Your task to perform on an android device: check data usage Image 0: 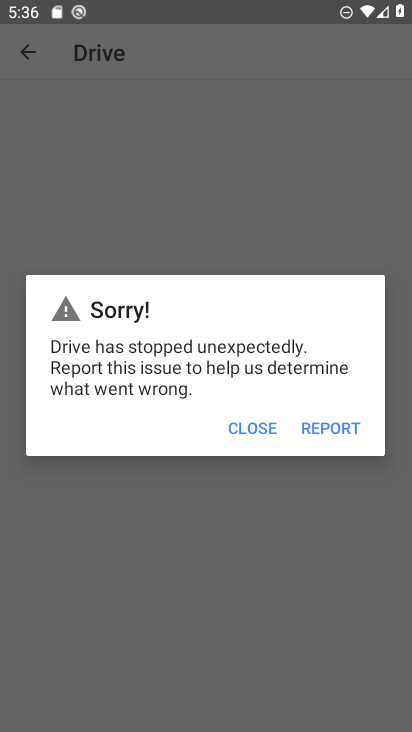
Step 0: press home button
Your task to perform on an android device: check data usage Image 1: 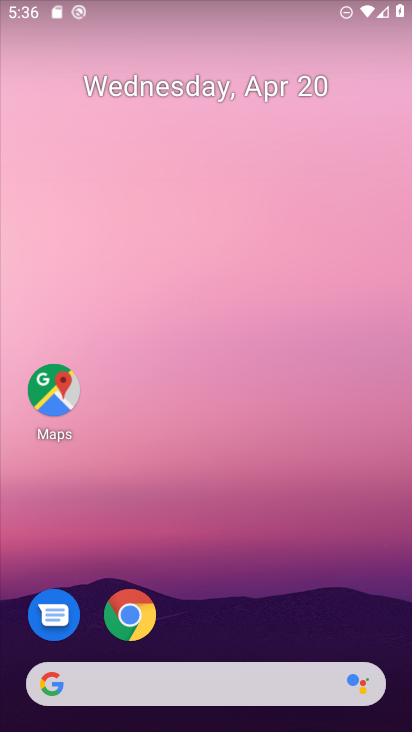
Step 1: drag from (256, 532) to (241, 43)
Your task to perform on an android device: check data usage Image 2: 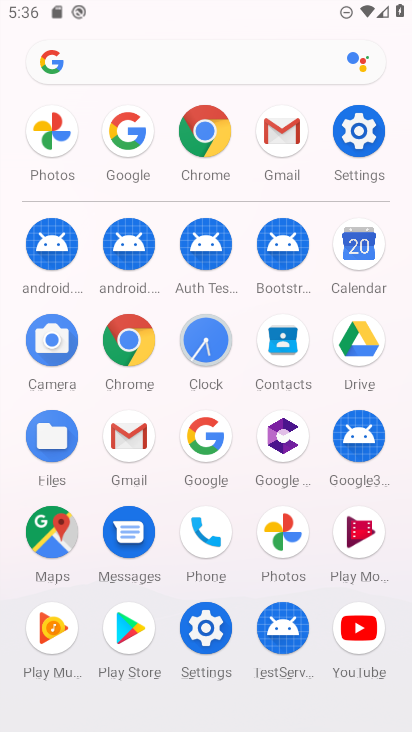
Step 2: click (358, 128)
Your task to perform on an android device: check data usage Image 3: 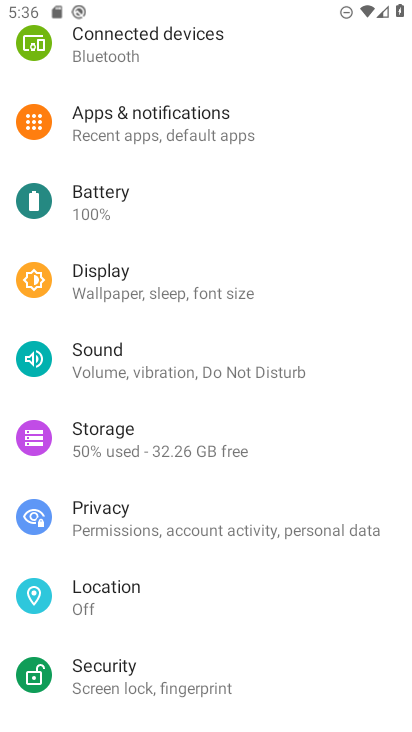
Step 3: click (131, 201)
Your task to perform on an android device: check data usage Image 4: 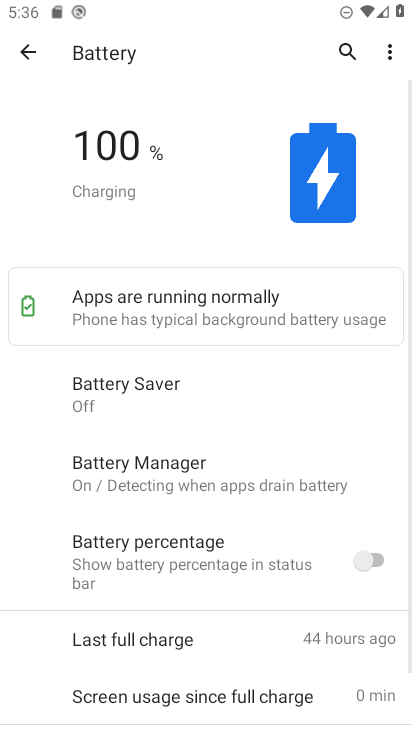
Step 4: click (29, 56)
Your task to perform on an android device: check data usage Image 5: 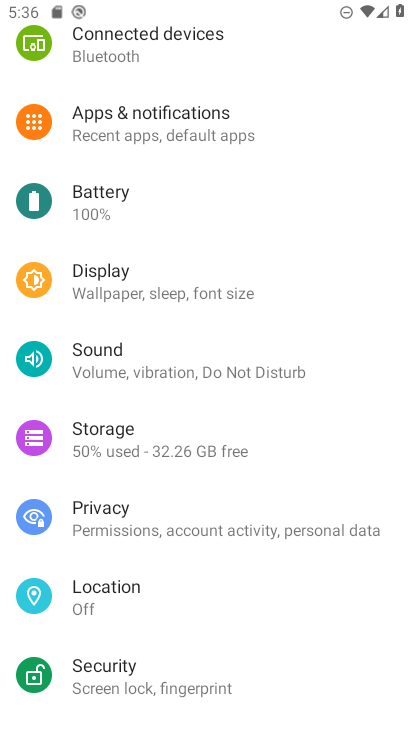
Step 5: drag from (279, 196) to (266, 530)
Your task to perform on an android device: check data usage Image 6: 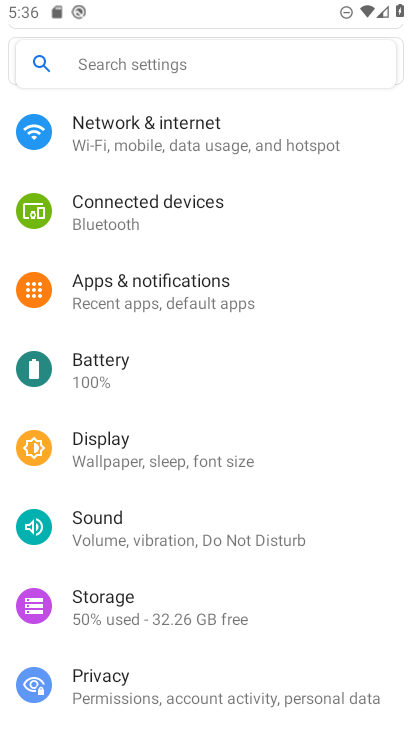
Step 6: click (192, 135)
Your task to perform on an android device: check data usage Image 7: 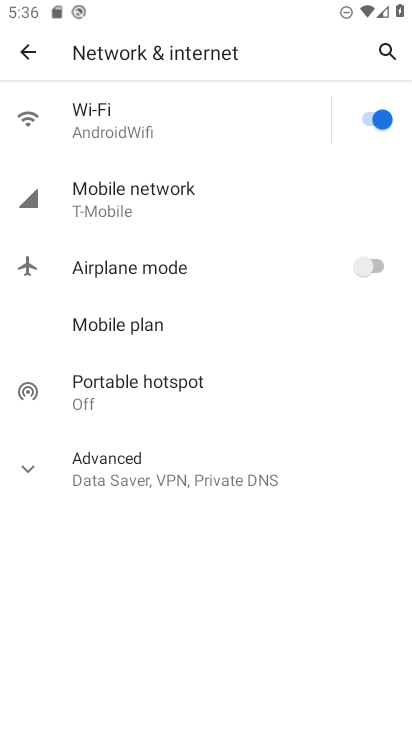
Step 7: click (135, 202)
Your task to perform on an android device: check data usage Image 8: 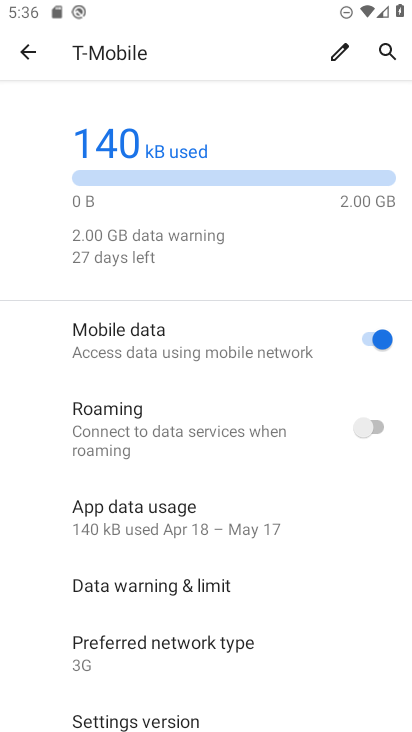
Step 8: click (170, 535)
Your task to perform on an android device: check data usage Image 9: 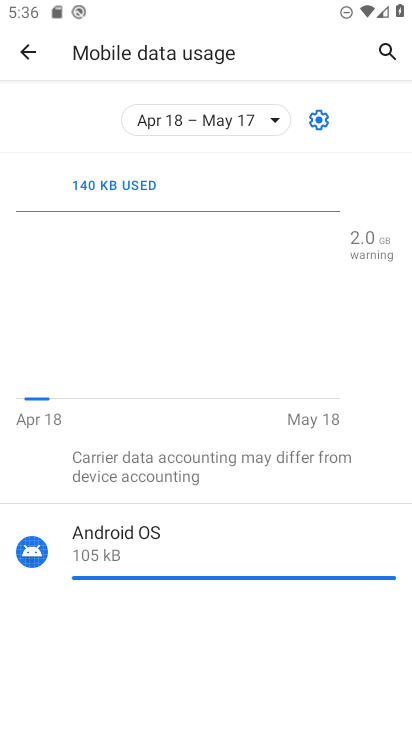
Step 9: task complete